Your task to perform on an android device: Open Google Chrome and click the shortcut for Amazon.com Image 0: 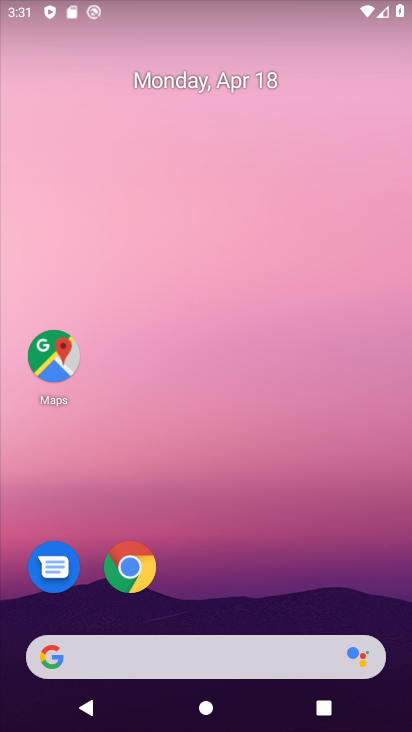
Step 0: click (145, 581)
Your task to perform on an android device: Open Google Chrome and click the shortcut for Amazon.com Image 1: 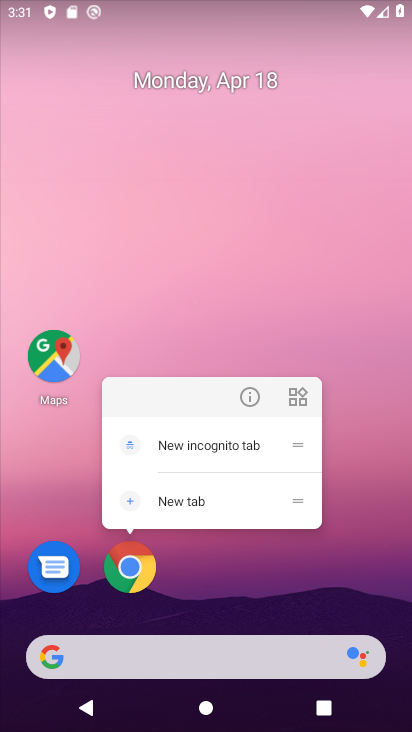
Step 1: click (145, 581)
Your task to perform on an android device: Open Google Chrome and click the shortcut for Amazon.com Image 2: 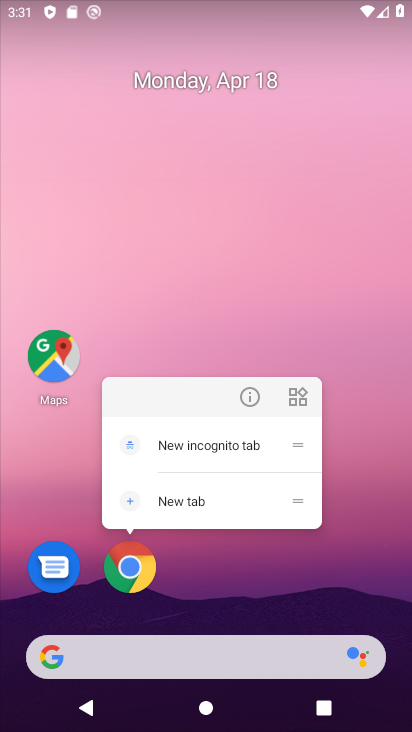
Step 2: click (145, 581)
Your task to perform on an android device: Open Google Chrome and click the shortcut for Amazon.com Image 3: 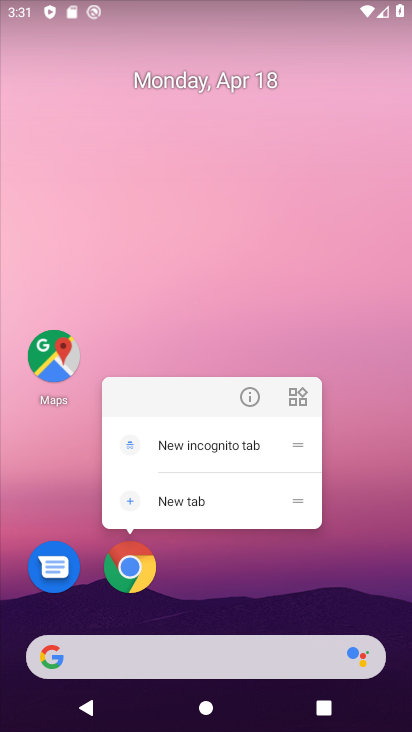
Step 3: click (138, 581)
Your task to perform on an android device: Open Google Chrome and click the shortcut for Amazon.com Image 4: 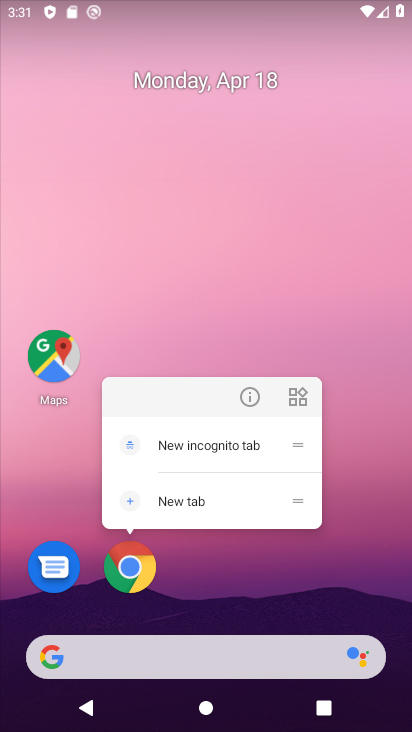
Step 4: click (141, 574)
Your task to perform on an android device: Open Google Chrome and click the shortcut for Amazon.com Image 5: 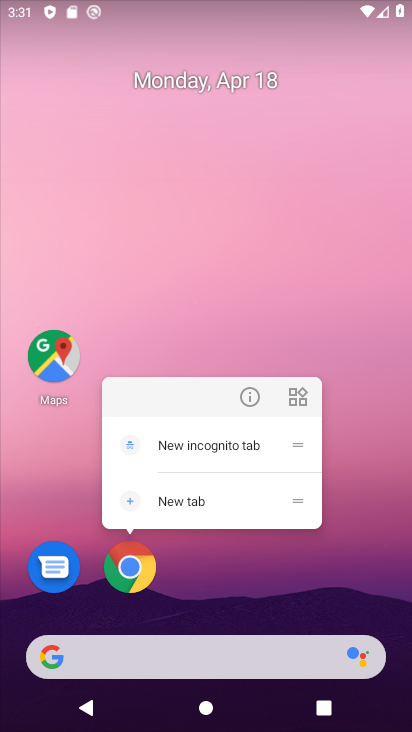
Step 5: click (141, 574)
Your task to perform on an android device: Open Google Chrome and click the shortcut for Amazon.com Image 6: 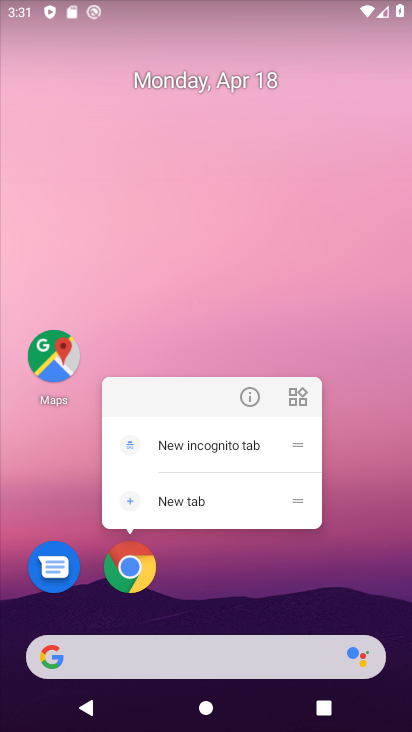
Step 6: click (141, 574)
Your task to perform on an android device: Open Google Chrome and click the shortcut for Amazon.com Image 7: 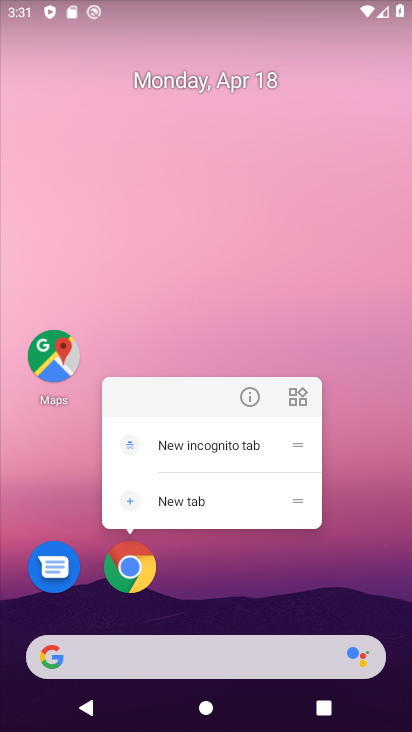
Step 7: click (128, 585)
Your task to perform on an android device: Open Google Chrome and click the shortcut for Amazon.com Image 8: 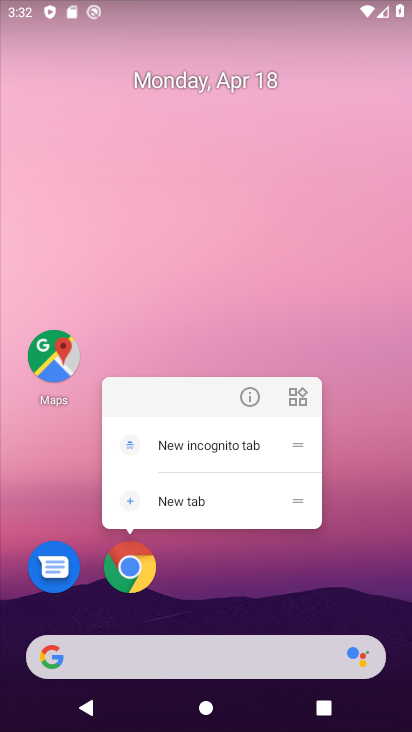
Step 8: click (137, 589)
Your task to perform on an android device: Open Google Chrome and click the shortcut for Amazon.com Image 9: 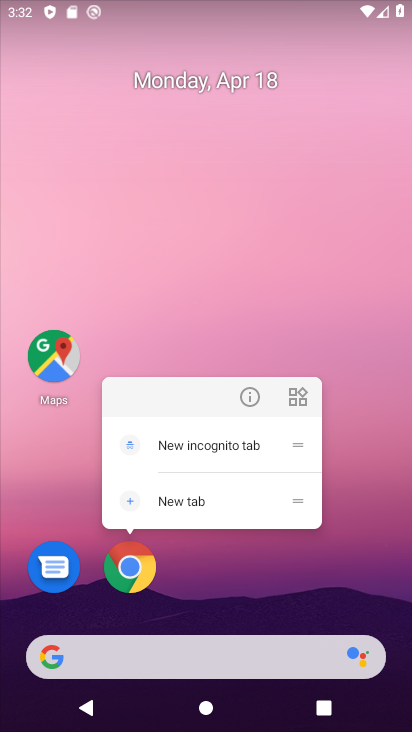
Step 9: click (137, 585)
Your task to perform on an android device: Open Google Chrome and click the shortcut for Amazon.com Image 10: 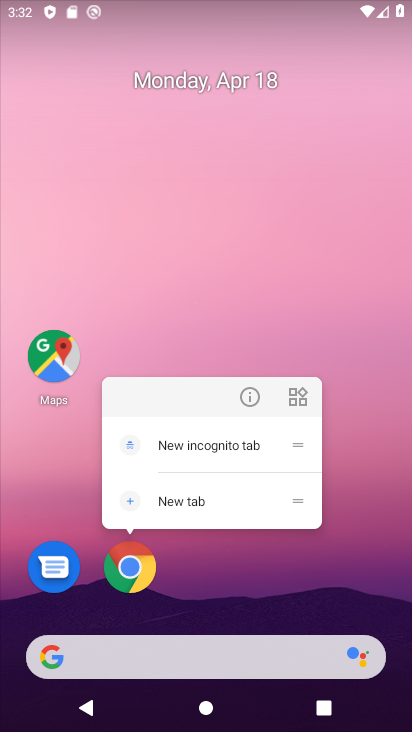
Step 10: click (129, 587)
Your task to perform on an android device: Open Google Chrome and click the shortcut for Amazon.com Image 11: 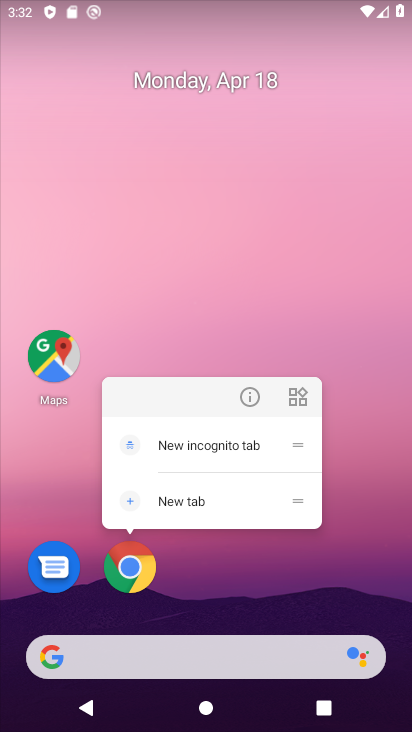
Step 11: click (129, 587)
Your task to perform on an android device: Open Google Chrome and click the shortcut for Amazon.com Image 12: 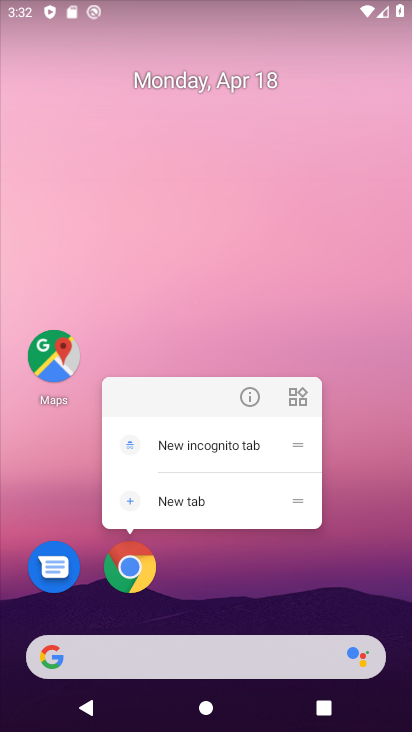
Step 12: click (129, 587)
Your task to perform on an android device: Open Google Chrome and click the shortcut for Amazon.com Image 13: 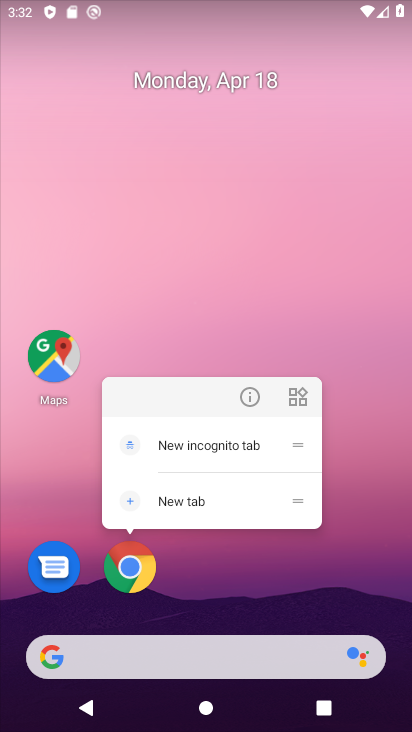
Step 13: click (129, 587)
Your task to perform on an android device: Open Google Chrome and click the shortcut for Amazon.com Image 14: 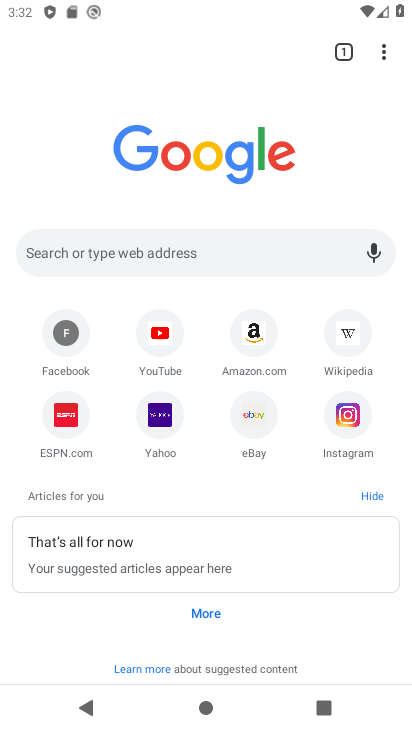
Step 14: click (261, 336)
Your task to perform on an android device: Open Google Chrome and click the shortcut for Amazon.com Image 15: 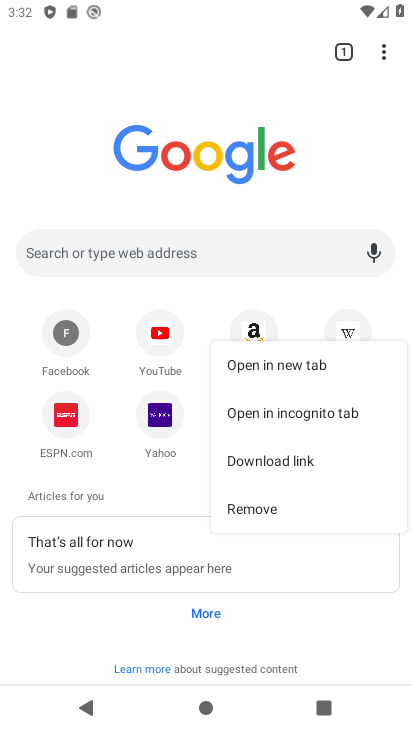
Step 15: click (254, 330)
Your task to perform on an android device: Open Google Chrome and click the shortcut for Amazon.com Image 16: 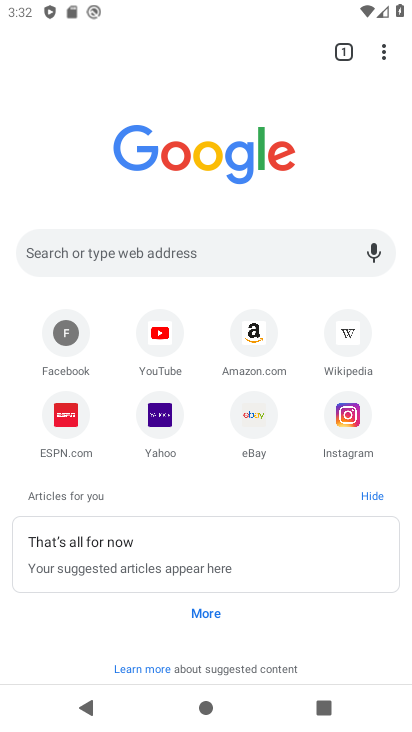
Step 16: click (255, 342)
Your task to perform on an android device: Open Google Chrome and click the shortcut for Amazon.com Image 17: 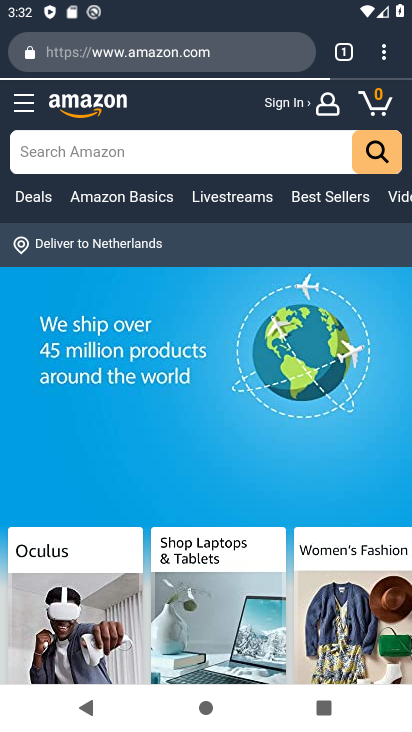
Step 17: task complete